Your task to perform on an android device: toggle wifi Image 0: 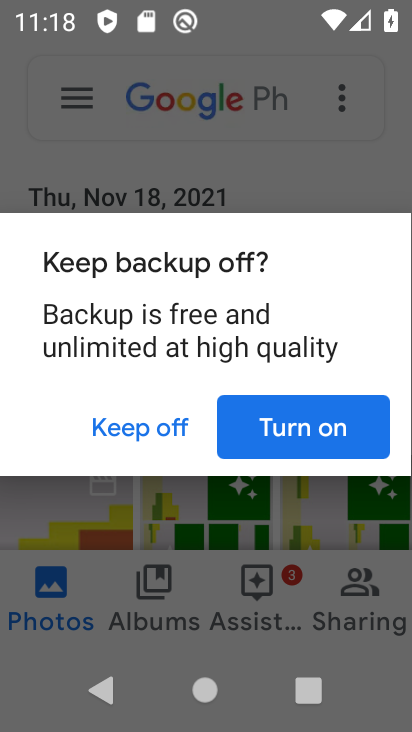
Step 0: press home button
Your task to perform on an android device: toggle wifi Image 1: 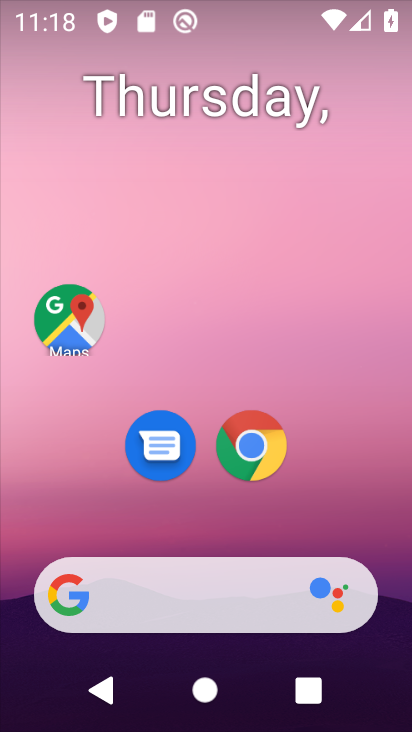
Step 1: drag from (144, 551) to (266, 45)
Your task to perform on an android device: toggle wifi Image 2: 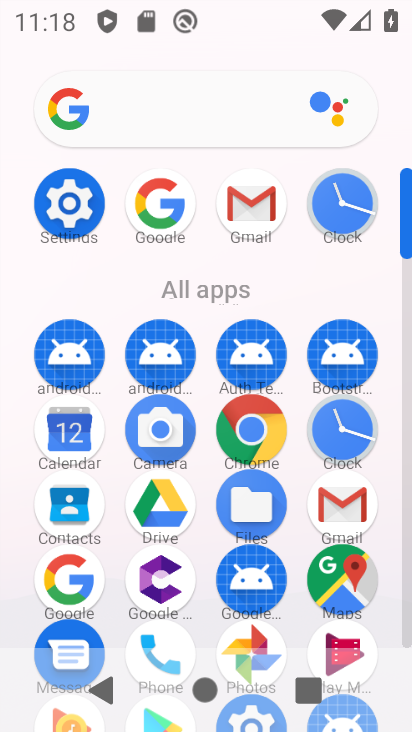
Step 2: drag from (206, 621) to (257, 358)
Your task to perform on an android device: toggle wifi Image 3: 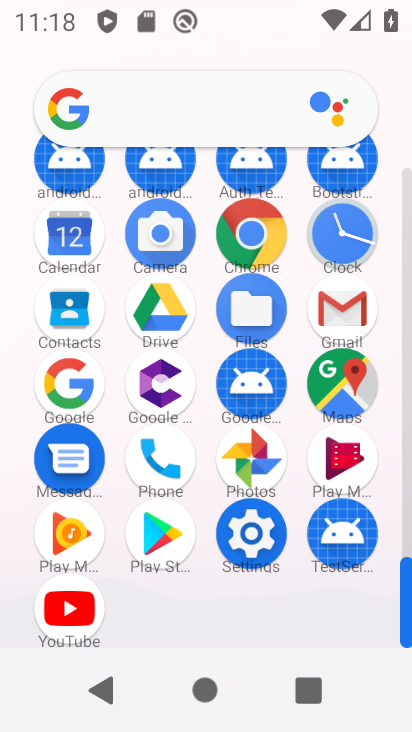
Step 3: click (244, 538)
Your task to perform on an android device: toggle wifi Image 4: 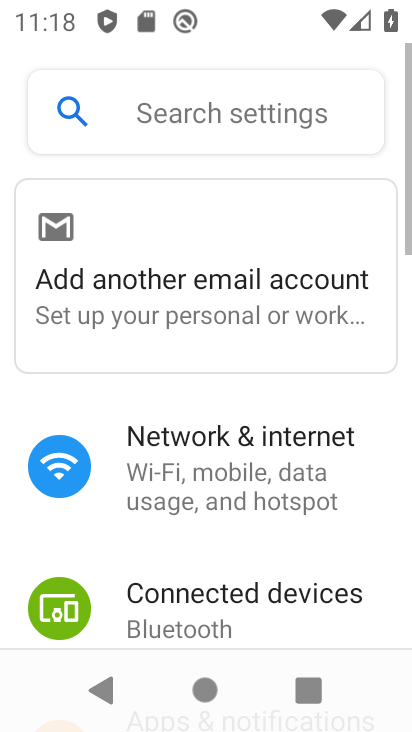
Step 4: click (240, 507)
Your task to perform on an android device: toggle wifi Image 5: 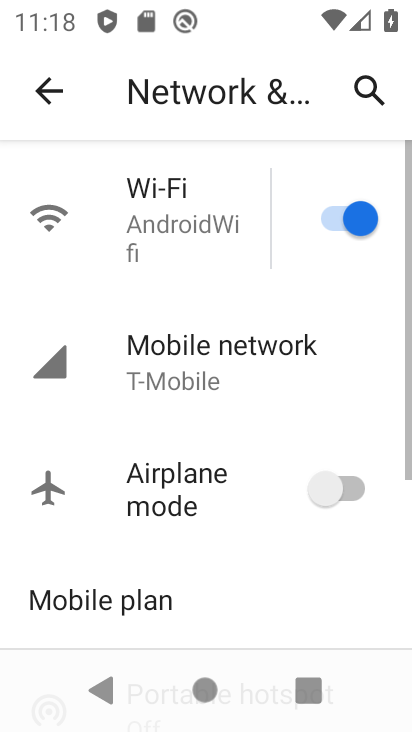
Step 5: click (321, 212)
Your task to perform on an android device: toggle wifi Image 6: 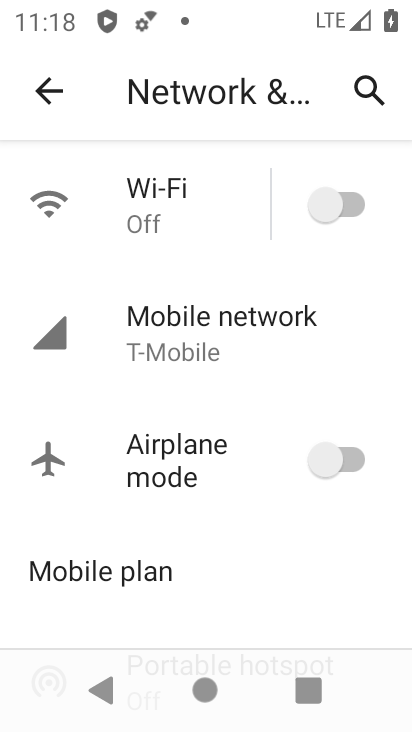
Step 6: task complete